Your task to perform on an android device: delete location history Image 0: 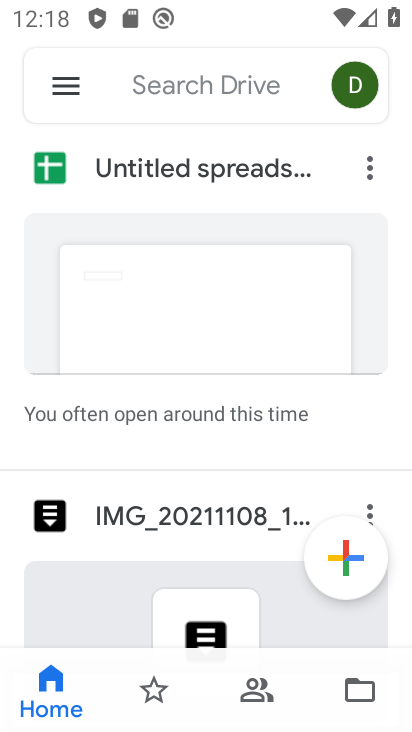
Step 0: press home button
Your task to perform on an android device: delete location history Image 1: 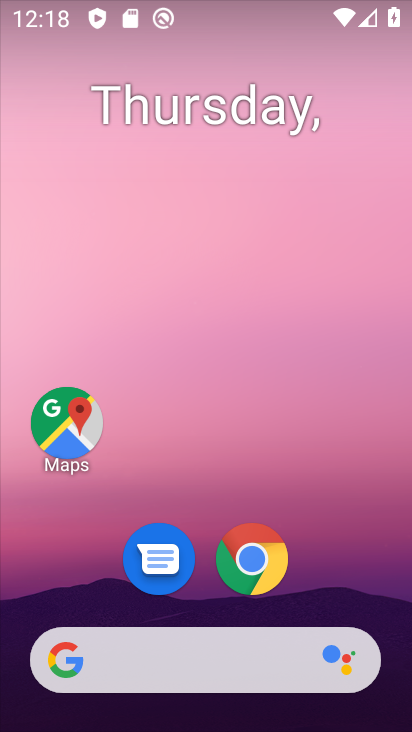
Step 1: drag from (332, 591) to (338, 0)
Your task to perform on an android device: delete location history Image 2: 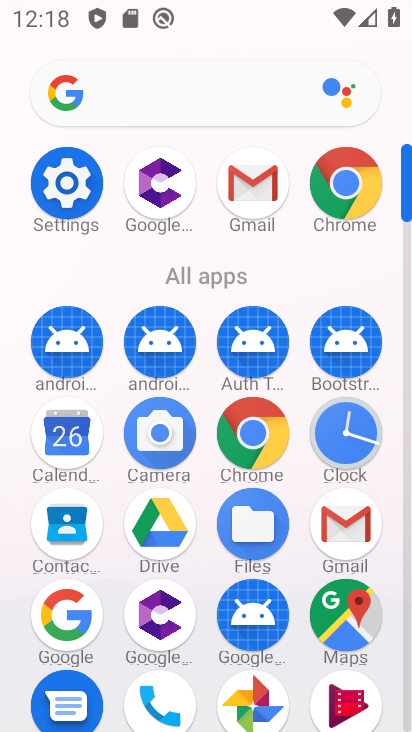
Step 2: click (87, 197)
Your task to perform on an android device: delete location history Image 3: 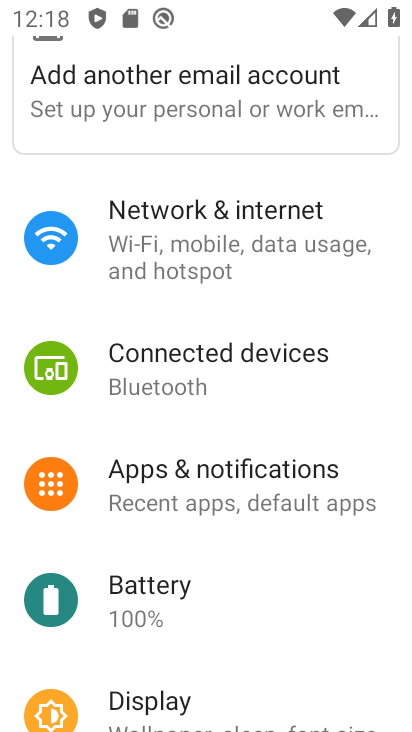
Step 3: drag from (232, 617) to (257, 186)
Your task to perform on an android device: delete location history Image 4: 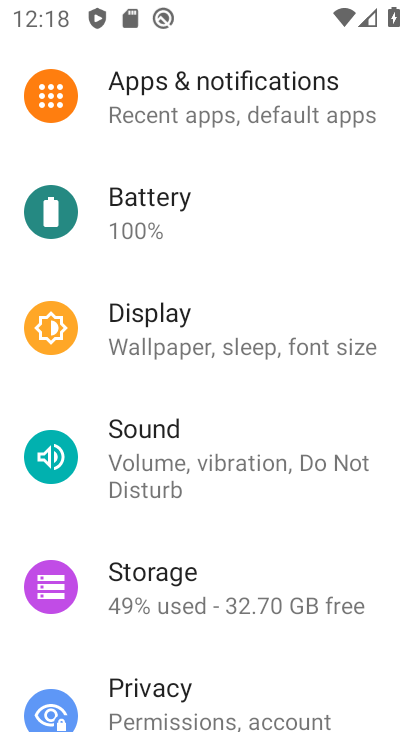
Step 4: drag from (257, 560) to (287, 194)
Your task to perform on an android device: delete location history Image 5: 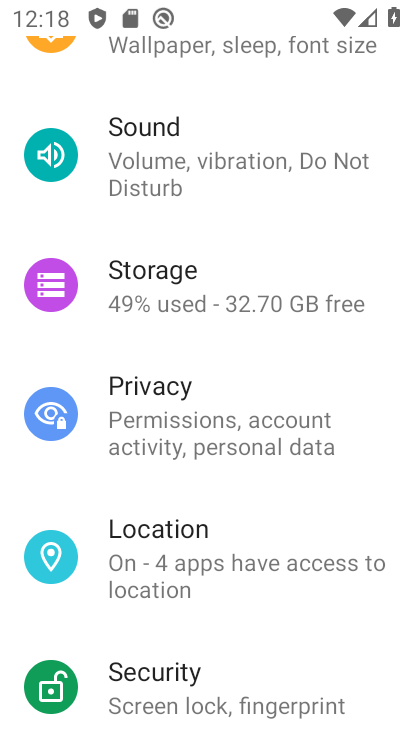
Step 5: click (190, 533)
Your task to perform on an android device: delete location history Image 6: 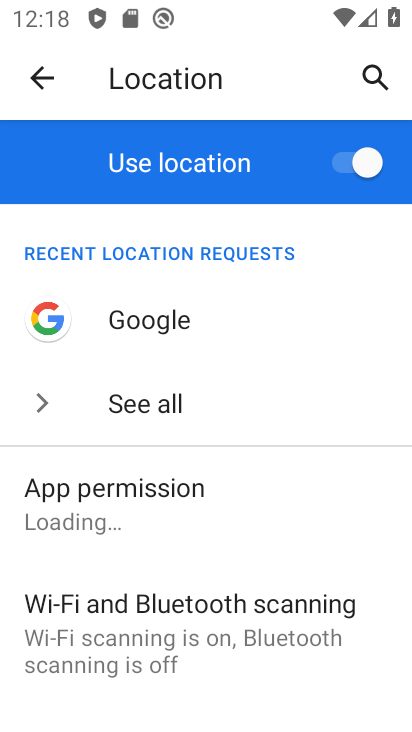
Step 6: drag from (210, 670) to (227, 278)
Your task to perform on an android device: delete location history Image 7: 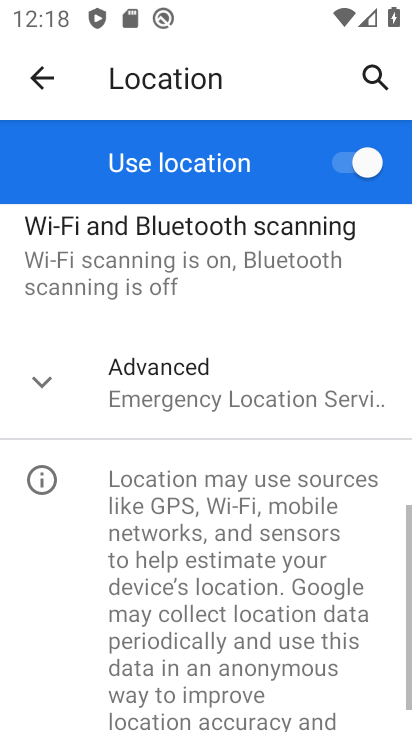
Step 7: click (220, 392)
Your task to perform on an android device: delete location history Image 8: 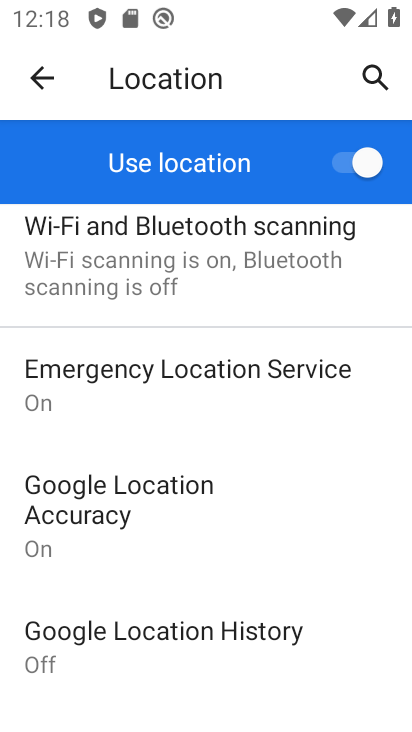
Step 8: click (248, 651)
Your task to perform on an android device: delete location history Image 9: 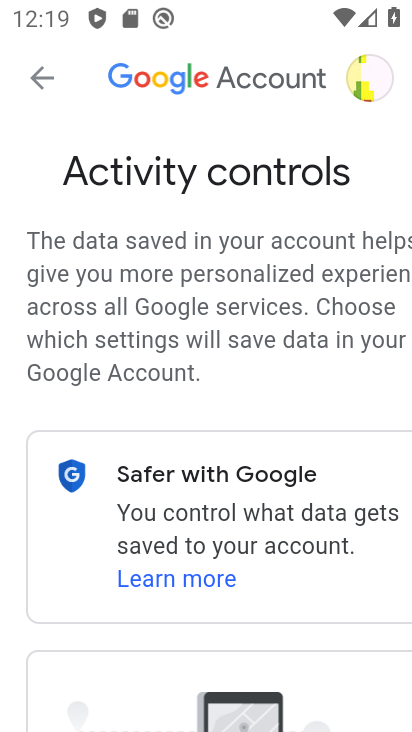
Step 9: drag from (264, 625) to (301, 248)
Your task to perform on an android device: delete location history Image 10: 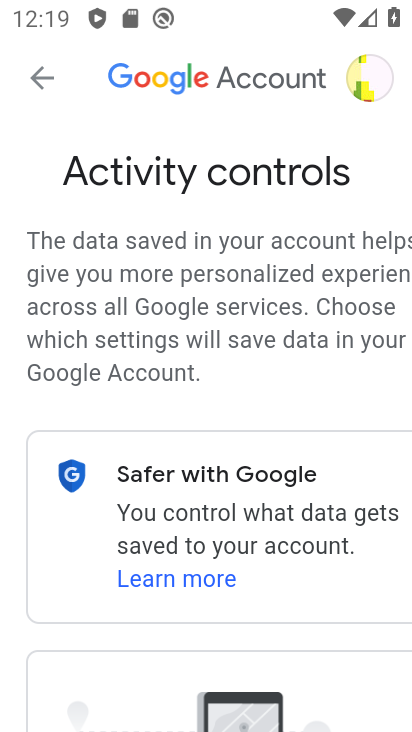
Step 10: drag from (314, 648) to (317, 203)
Your task to perform on an android device: delete location history Image 11: 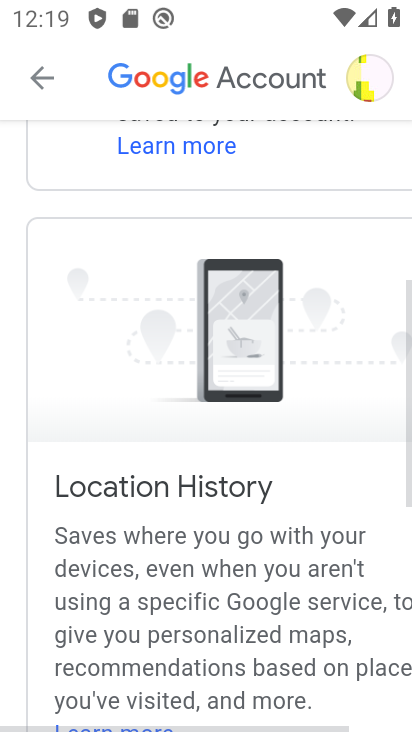
Step 11: drag from (327, 702) to (327, 339)
Your task to perform on an android device: delete location history Image 12: 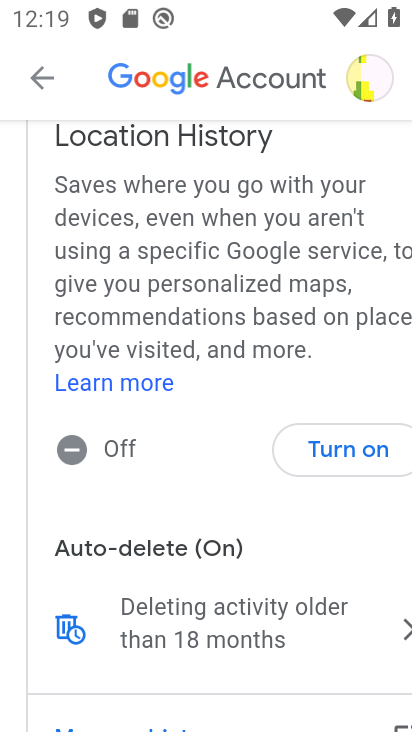
Step 12: drag from (212, 606) to (201, 326)
Your task to perform on an android device: delete location history Image 13: 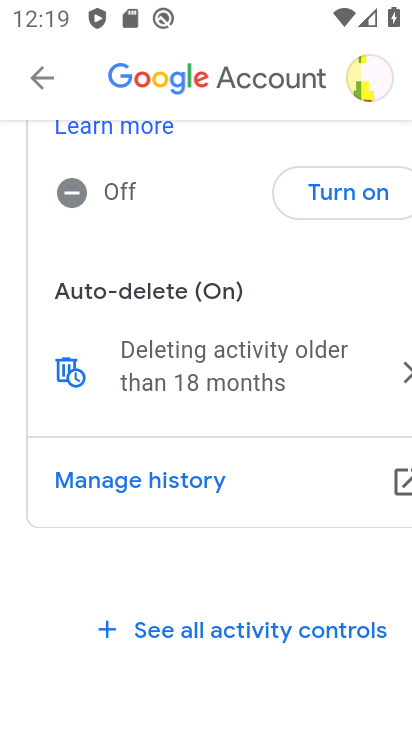
Step 13: click (200, 482)
Your task to perform on an android device: delete location history Image 14: 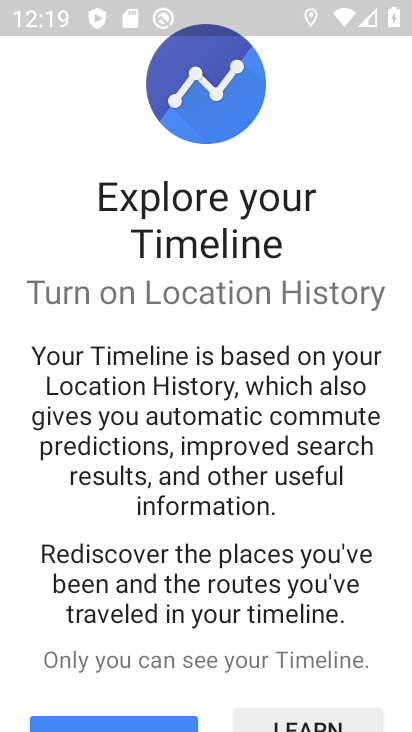
Step 14: drag from (232, 522) to (223, 172)
Your task to perform on an android device: delete location history Image 15: 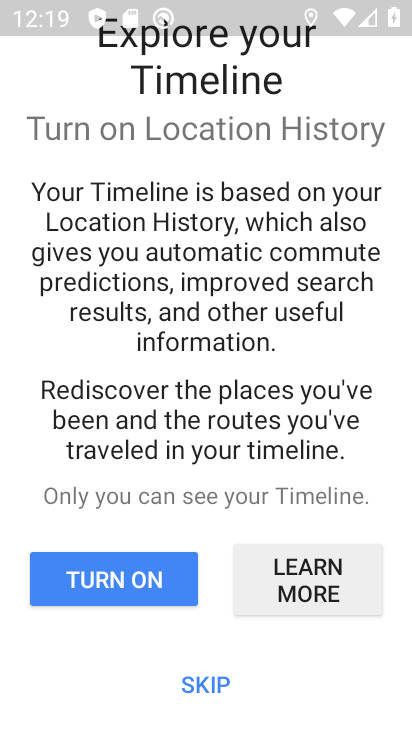
Step 15: click (206, 691)
Your task to perform on an android device: delete location history Image 16: 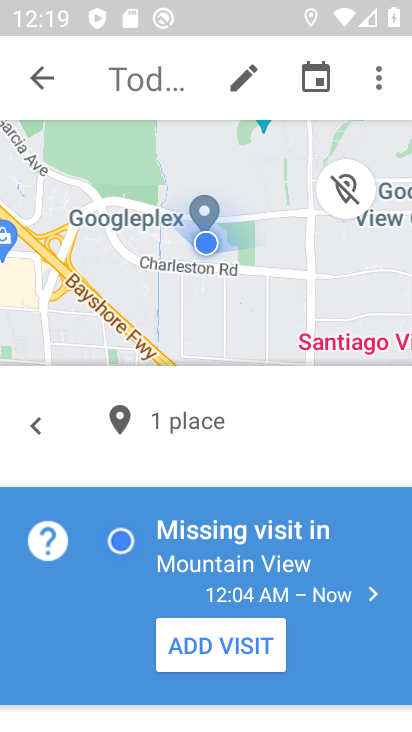
Step 16: click (385, 76)
Your task to perform on an android device: delete location history Image 17: 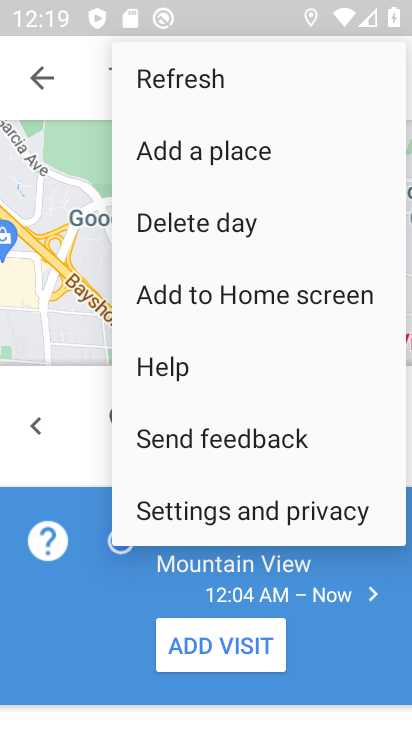
Step 17: click (212, 215)
Your task to perform on an android device: delete location history Image 18: 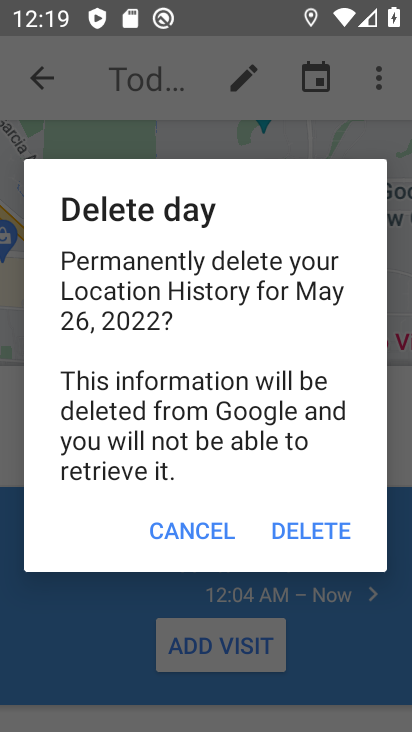
Step 18: click (321, 533)
Your task to perform on an android device: delete location history Image 19: 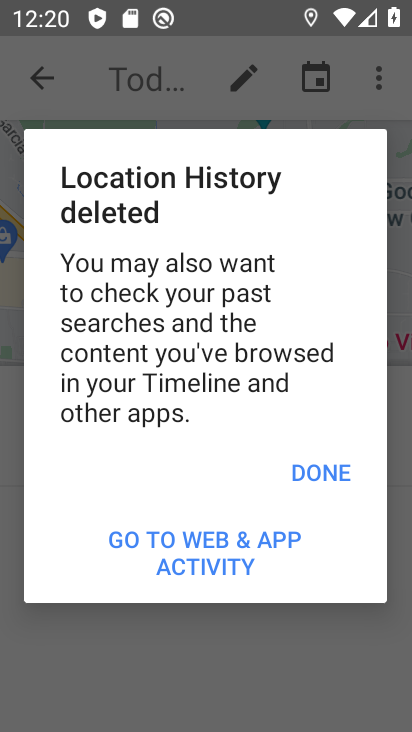
Step 19: click (345, 469)
Your task to perform on an android device: delete location history Image 20: 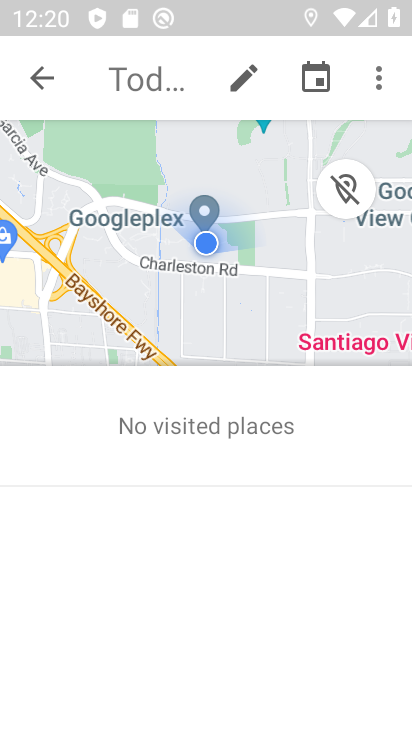
Step 20: task complete